Your task to perform on an android device: check out phone information Image 0: 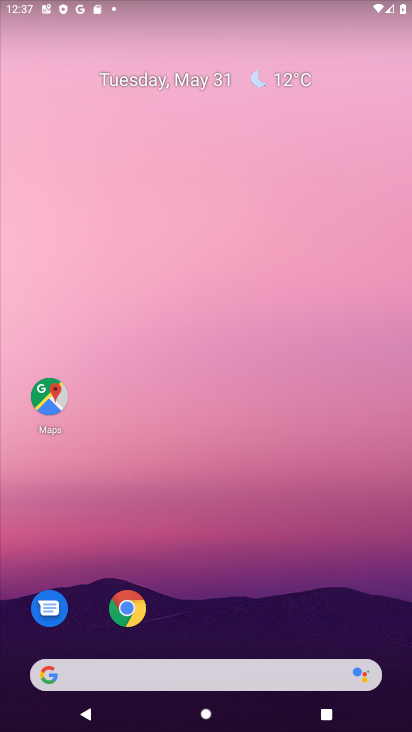
Step 0: drag from (202, 628) to (250, 132)
Your task to perform on an android device: check out phone information Image 1: 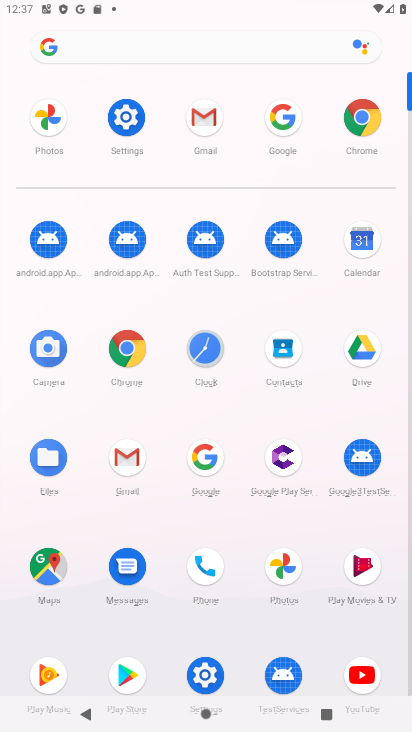
Step 1: click (125, 112)
Your task to perform on an android device: check out phone information Image 2: 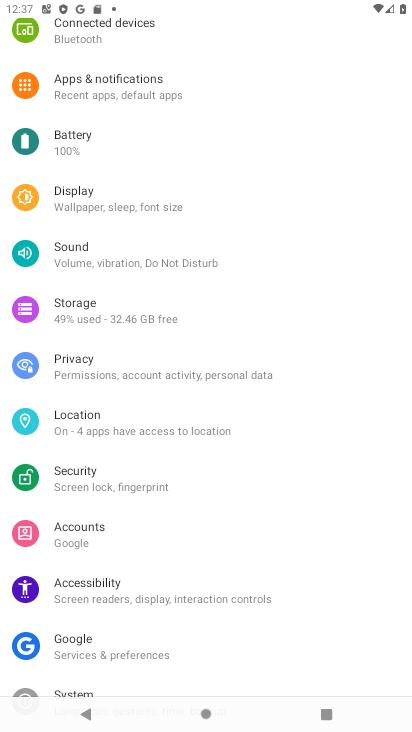
Step 2: drag from (254, 623) to (262, 77)
Your task to perform on an android device: check out phone information Image 3: 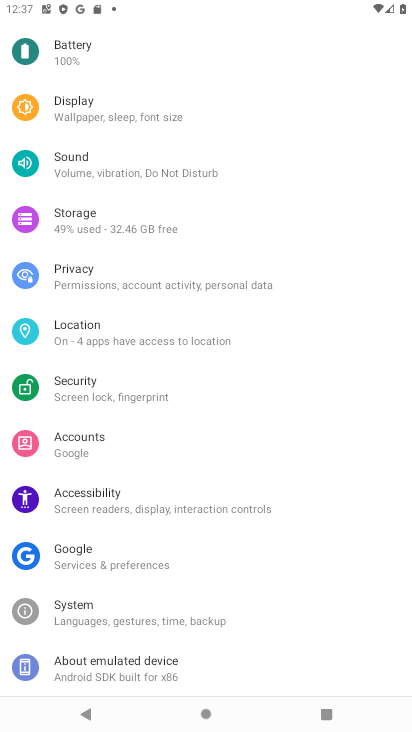
Step 3: click (92, 663)
Your task to perform on an android device: check out phone information Image 4: 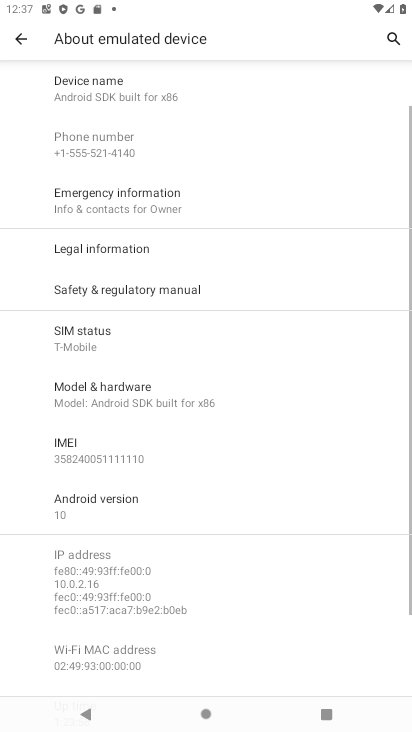
Step 4: task complete